Your task to perform on an android device: Open Google Image 0: 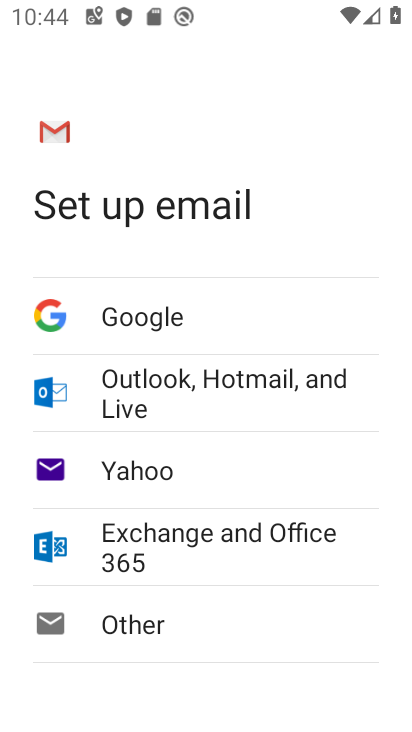
Step 0: press home button
Your task to perform on an android device: Open Google Image 1: 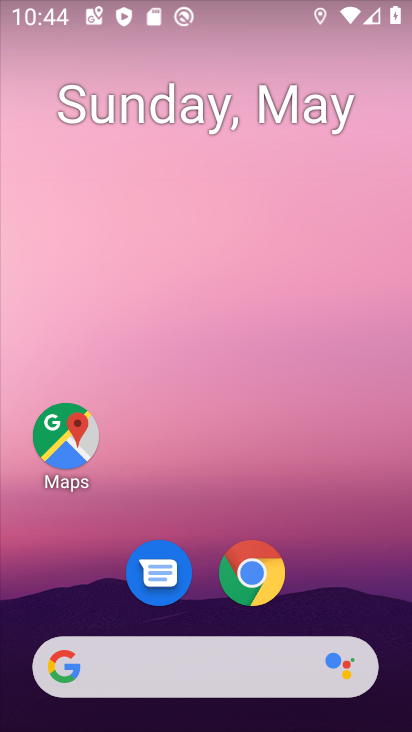
Step 1: drag from (53, 461) to (71, 190)
Your task to perform on an android device: Open Google Image 2: 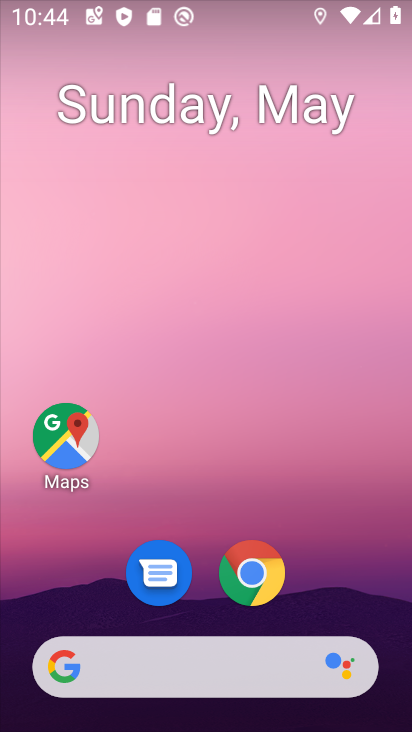
Step 2: drag from (74, 560) to (83, 72)
Your task to perform on an android device: Open Google Image 3: 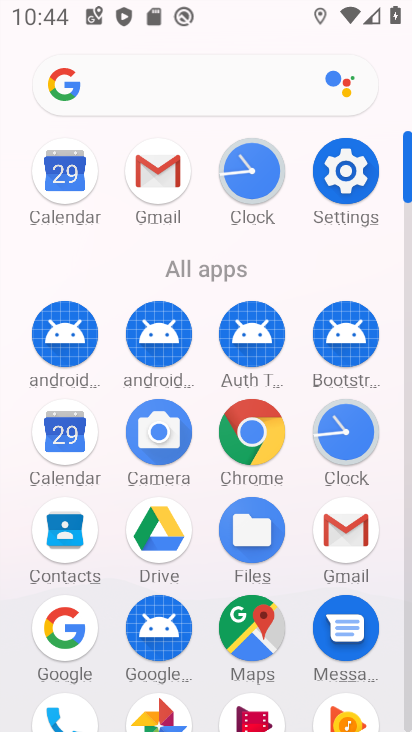
Step 3: click (67, 627)
Your task to perform on an android device: Open Google Image 4: 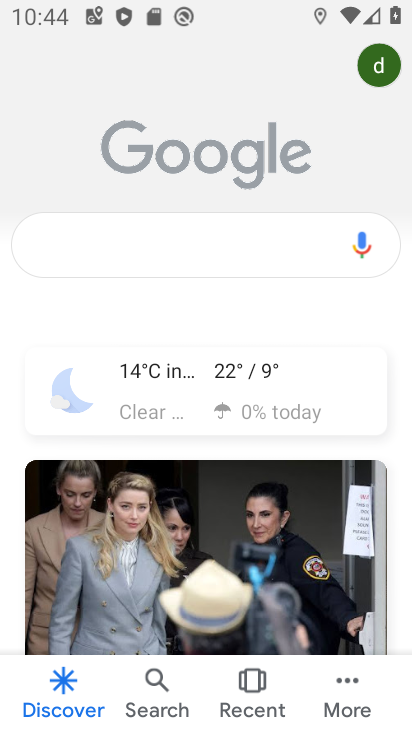
Step 4: task complete